Your task to perform on an android device: Search for sushi restaurants on Maps Image 0: 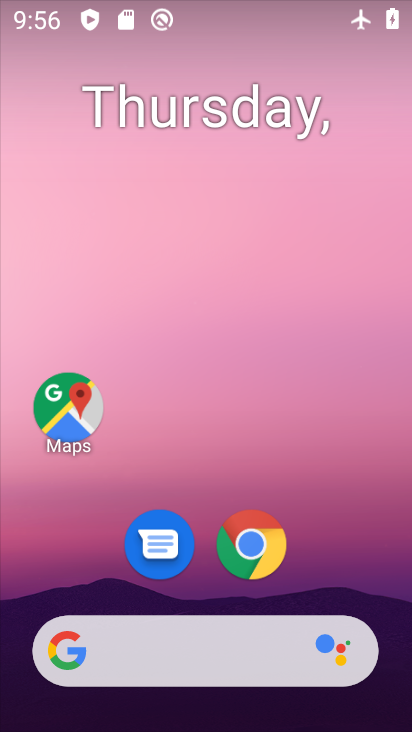
Step 0: press home button
Your task to perform on an android device: Search for sushi restaurants on Maps Image 1: 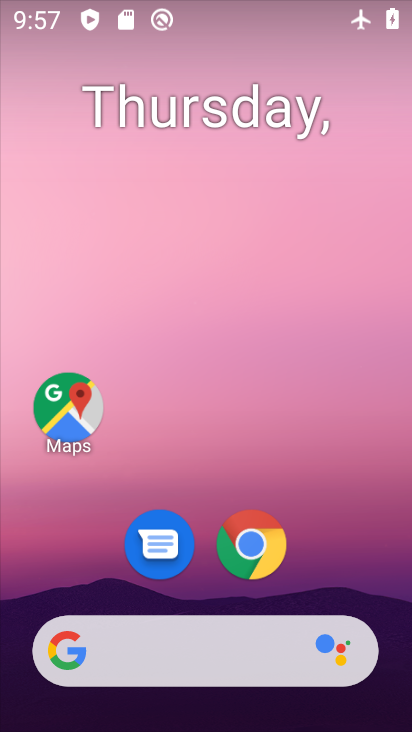
Step 1: click (75, 408)
Your task to perform on an android device: Search for sushi restaurants on Maps Image 2: 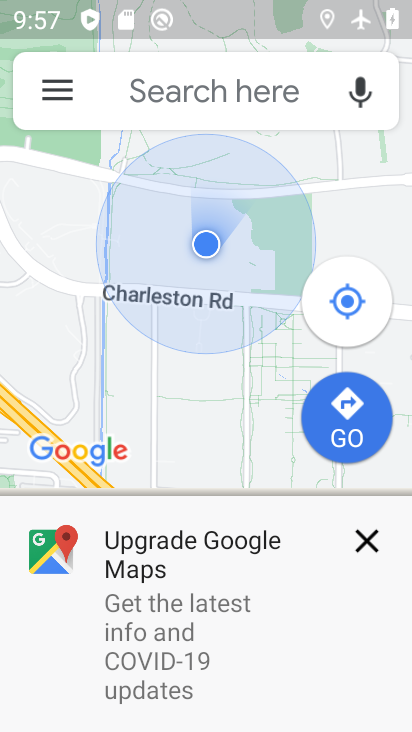
Step 2: click (356, 545)
Your task to perform on an android device: Search for sushi restaurants on Maps Image 3: 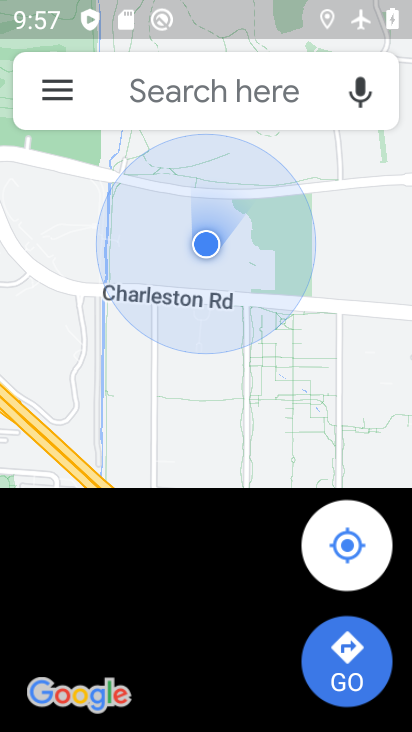
Step 3: click (145, 87)
Your task to perform on an android device: Search for sushi restaurants on Maps Image 4: 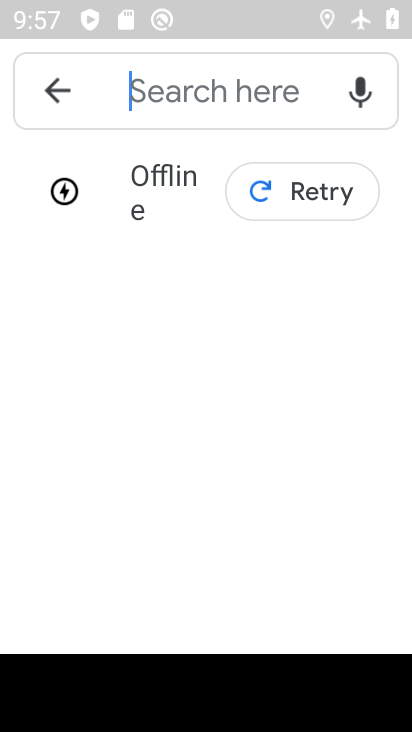
Step 4: type "sushi"
Your task to perform on an android device: Search for sushi restaurants on Maps Image 5: 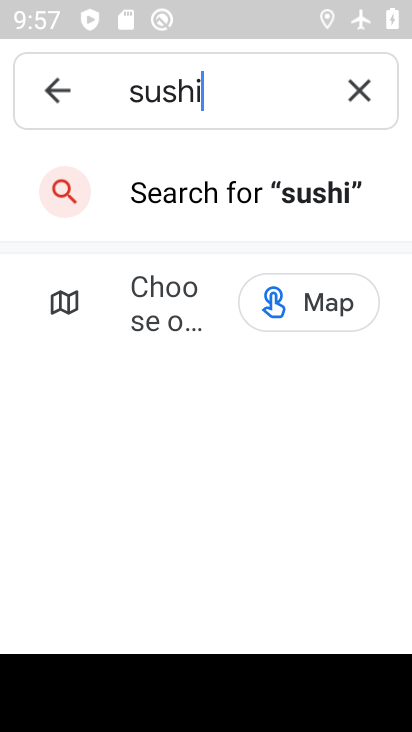
Step 5: task complete